Your task to perform on an android device: Go to Google maps Image 0: 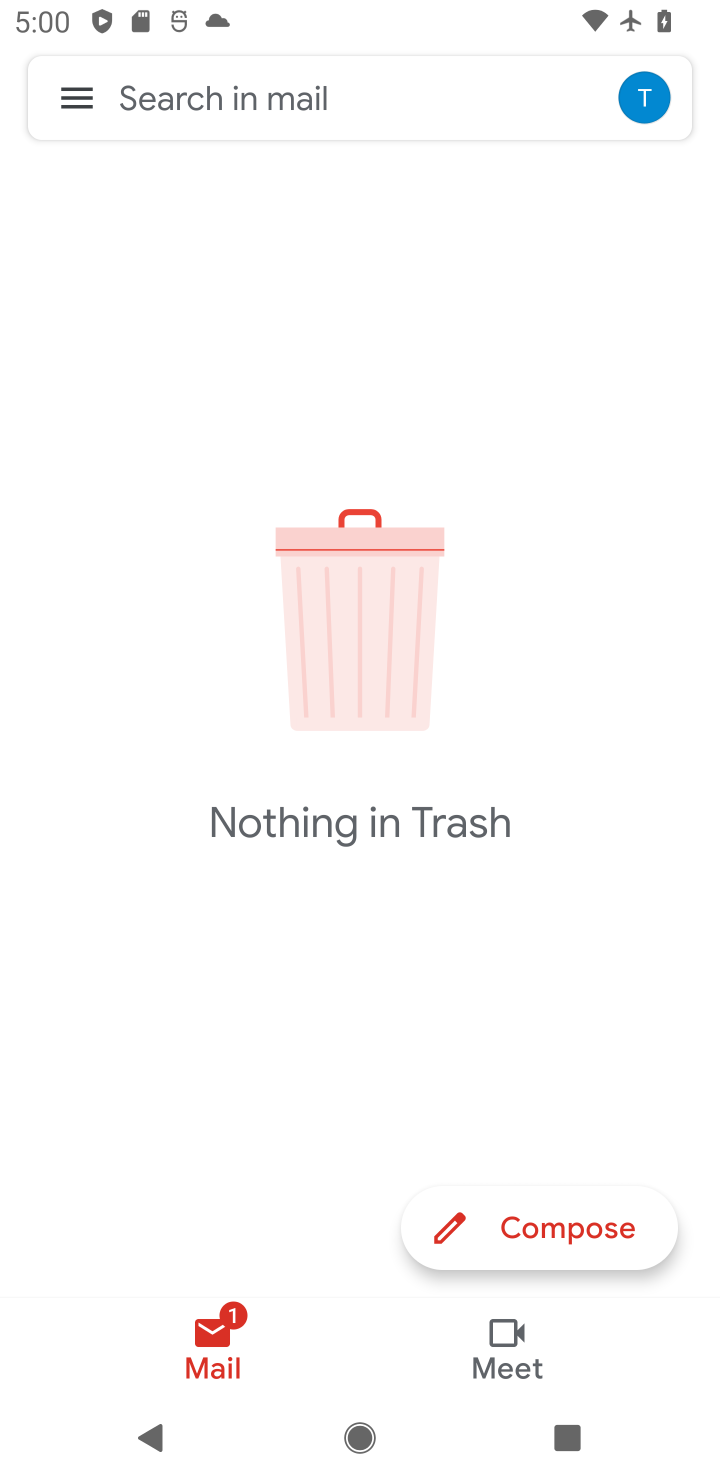
Step 0: press home button
Your task to perform on an android device: Go to Google maps Image 1: 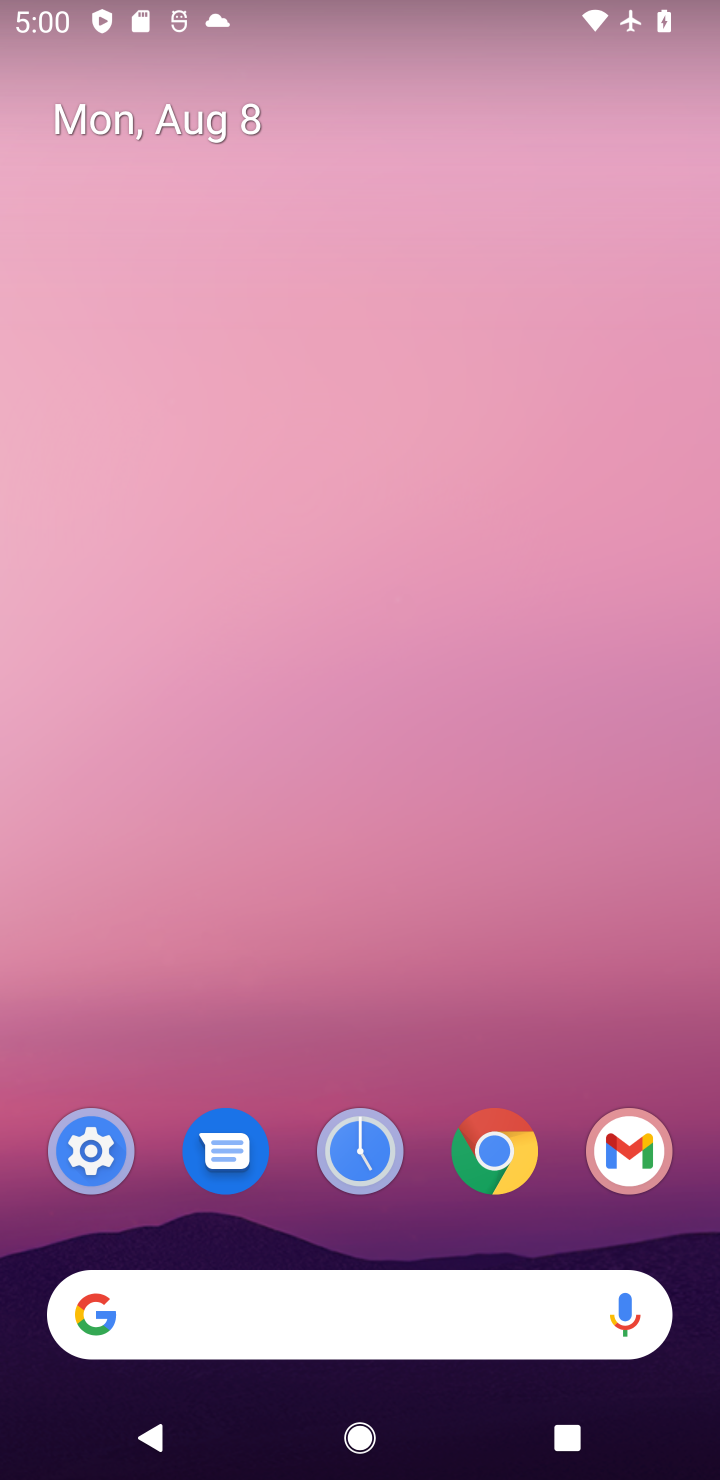
Step 1: drag from (385, 847) to (336, 268)
Your task to perform on an android device: Go to Google maps Image 2: 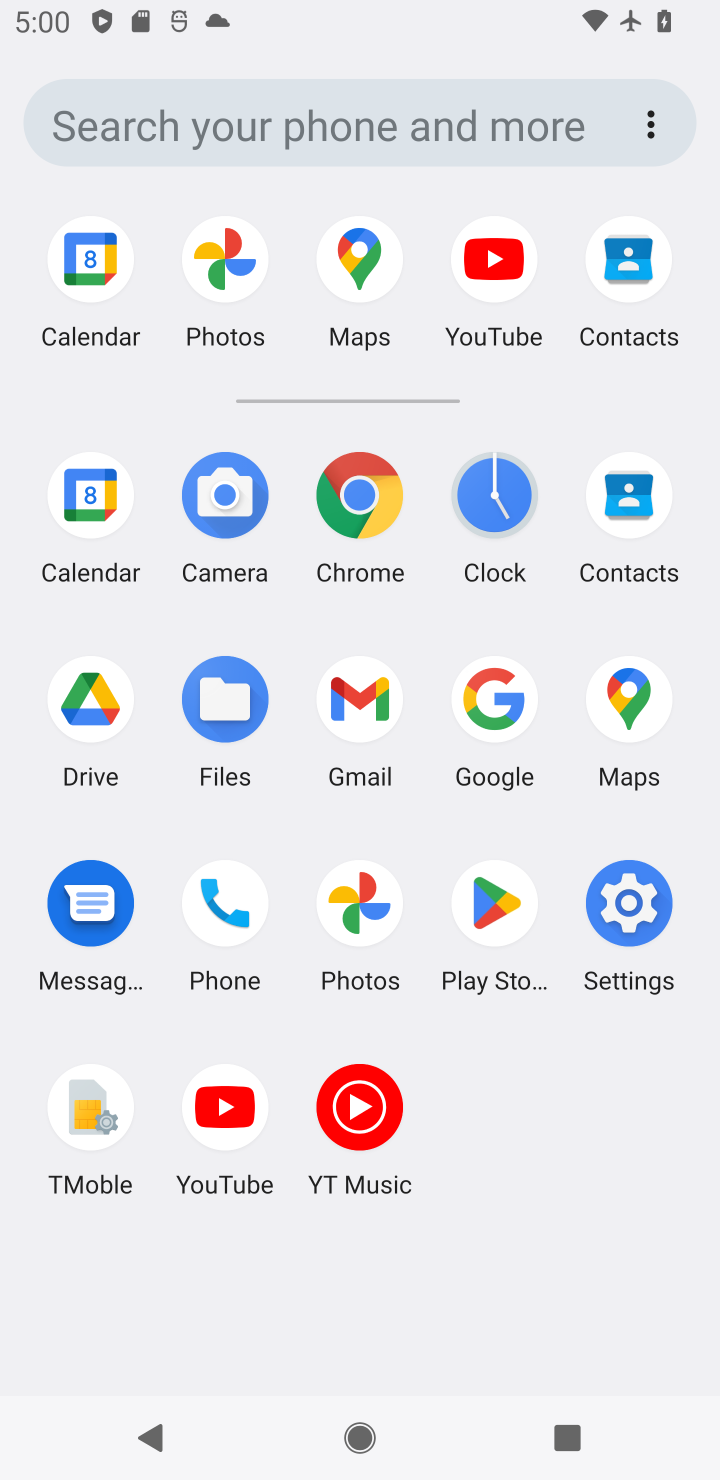
Step 2: click (610, 722)
Your task to perform on an android device: Go to Google maps Image 3: 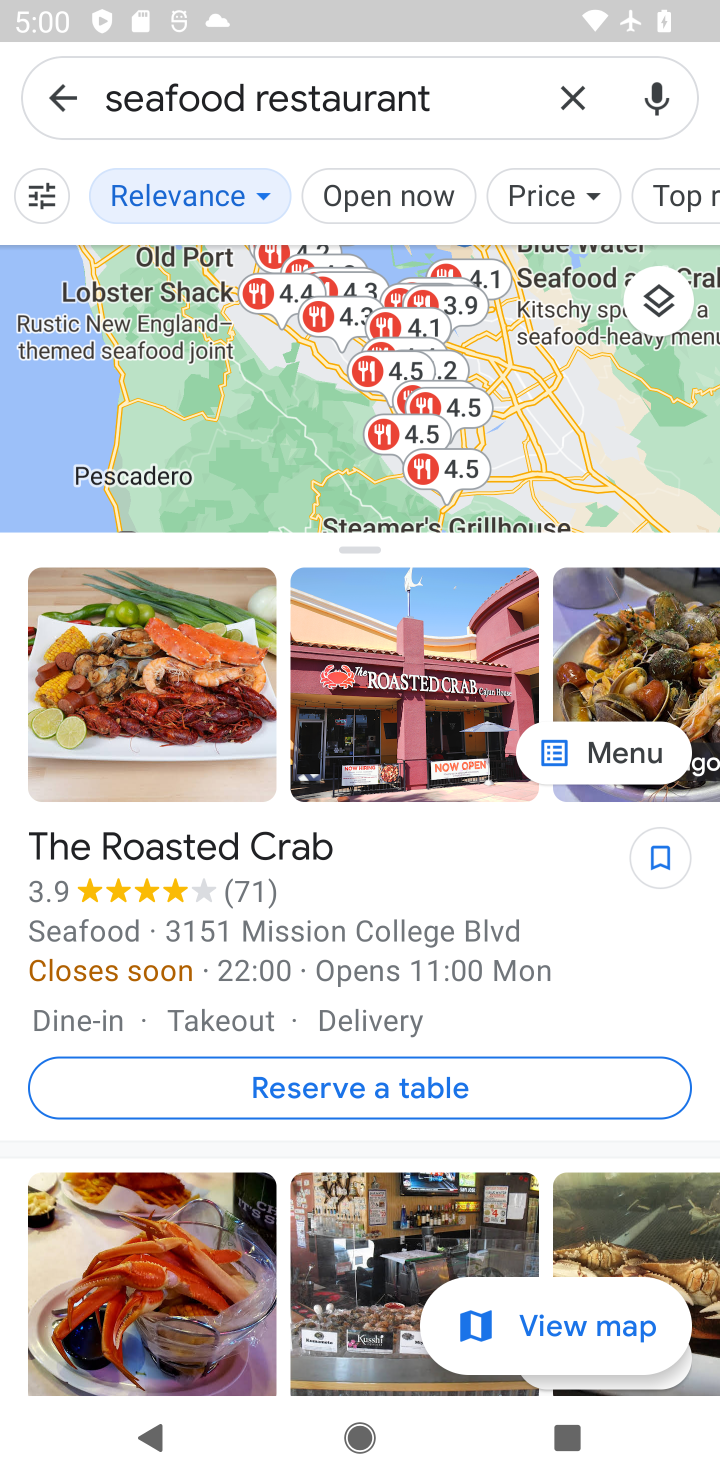
Step 3: task complete